Your task to perform on an android device: move a message to another label in the gmail app Image 0: 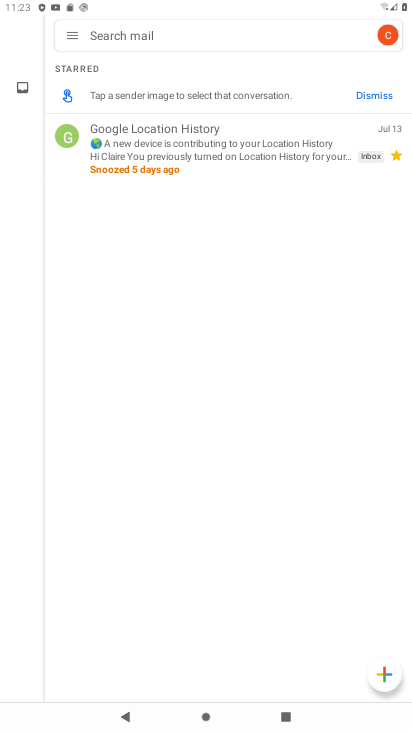
Step 0: click (71, 35)
Your task to perform on an android device: move a message to another label in the gmail app Image 1: 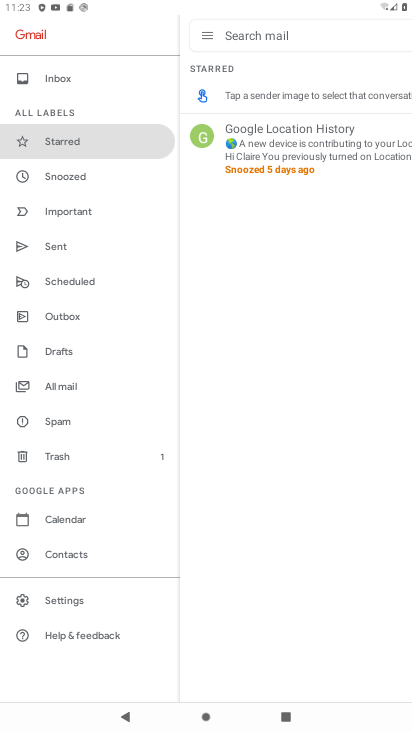
Step 1: click (66, 388)
Your task to perform on an android device: move a message to another label in the gmail app Image 2: 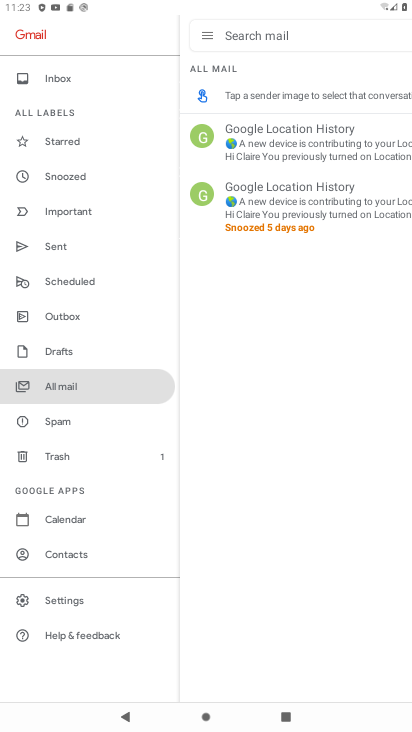
Step 2: click (204, 44)
Your task to perform on an android device: move a message to another label in the gmail app Image 3: 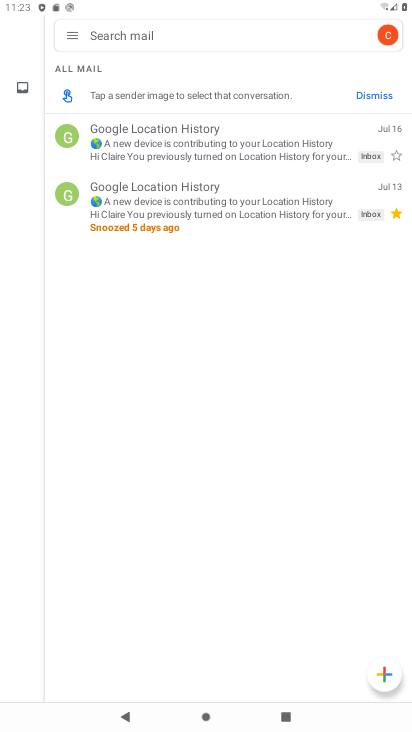
Step 3: click (204, 142)
Your task to perform on an android device: move a message to another label in the gmail app Image 4: 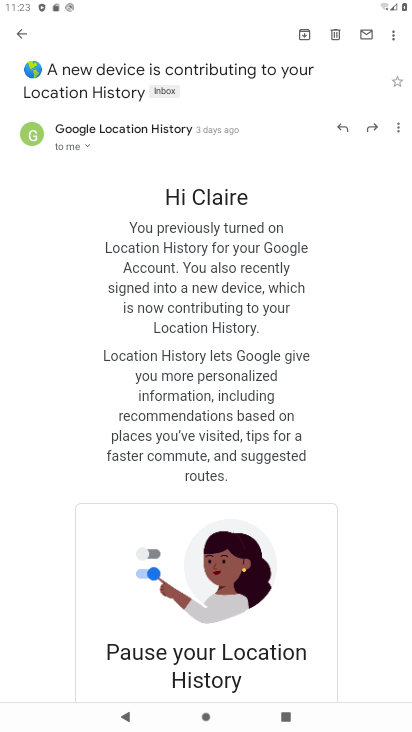
Step 4: click (164, 89)
Your task to perform on an android device: move a message to another label in the gmail app Image 5: 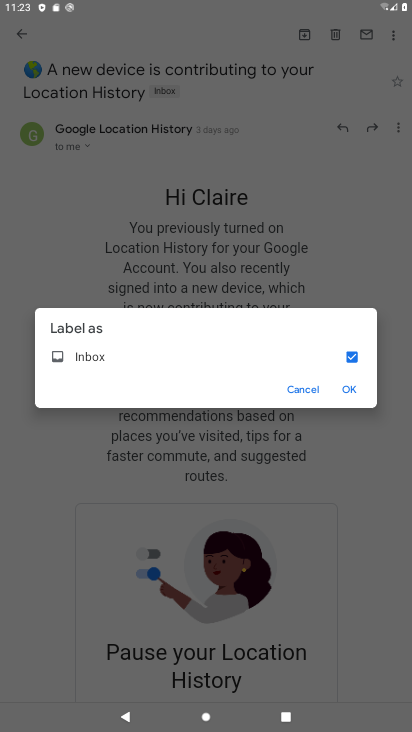
Step 5: click (350, 358)
Your task to perform on an android device: move a message to another label in the gmail app Image 6: 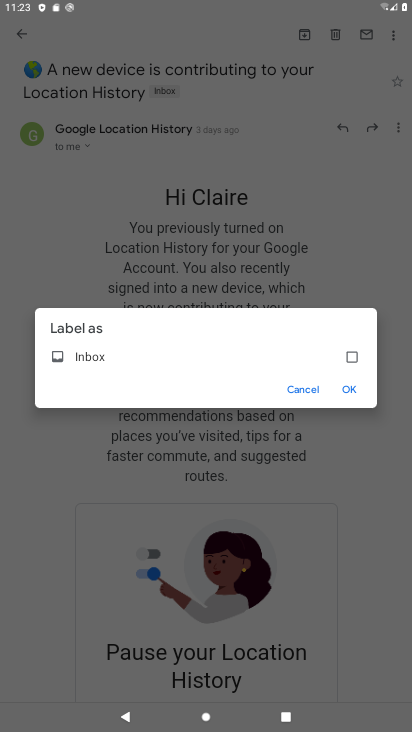
Step 6: click (350, 390)
Your task to perform on an android device: move a message to another label in the gmail app Image 7: 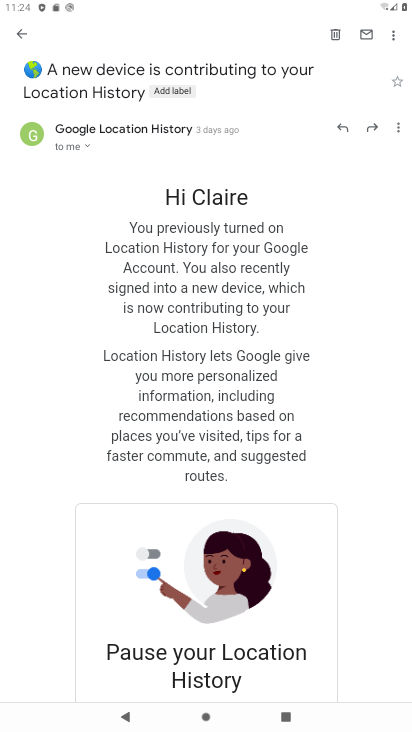
Step 7: task complete